Your task to perform on an android device: turn on translation in the chrome app Image 0: 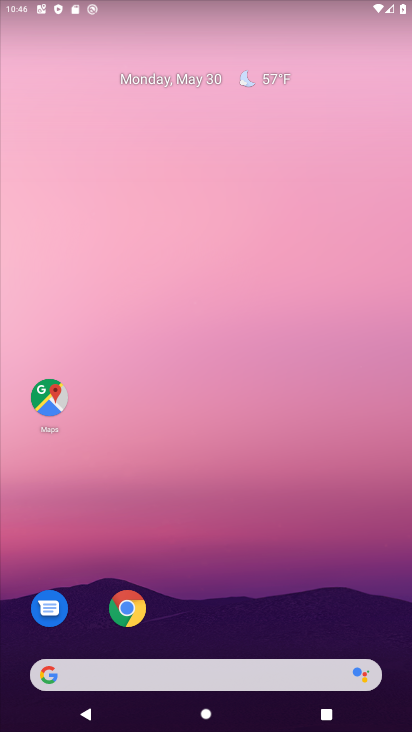
Step 0: drag from (250, 571) to (250, 27)
Your task to perform on an android device: turn on translation in the chrome app Image 1: 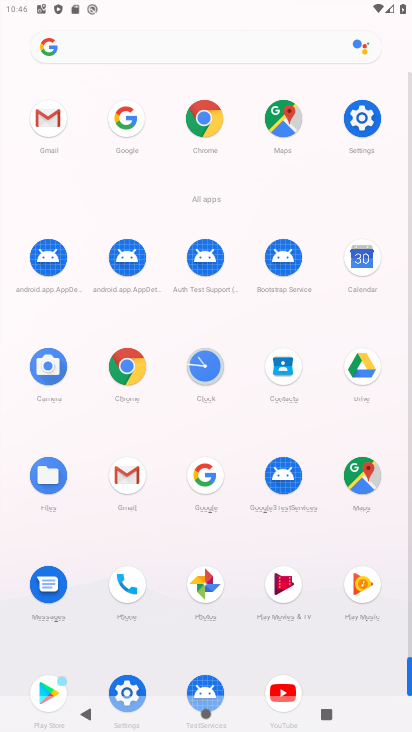
Step 1: drag from (23, 549) to (28, 209)
Your task to perform on an android device: turn on translation in the chrome app Image 2: 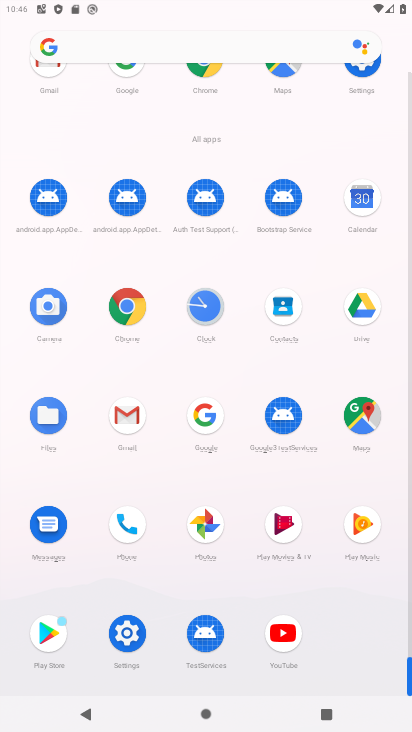
Step 2: click (125, 303)
Your task to perform on an android device: turn on translation in the chrome app Image 3: 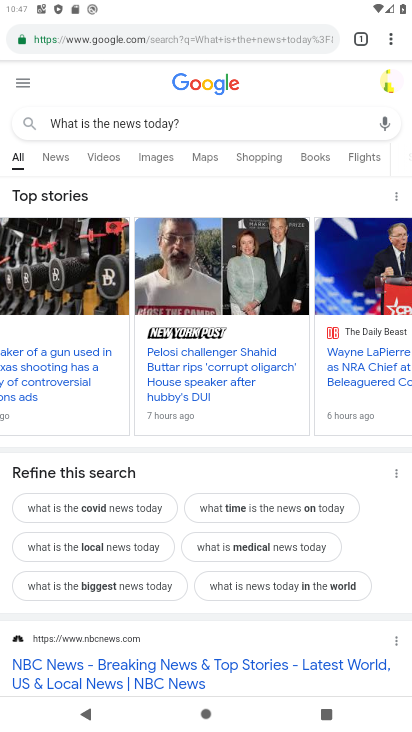
Step 3: drag from (387, 40) to (241, 471)
Your task to perform on an android device: turn on translation in the chrome app Image 4: 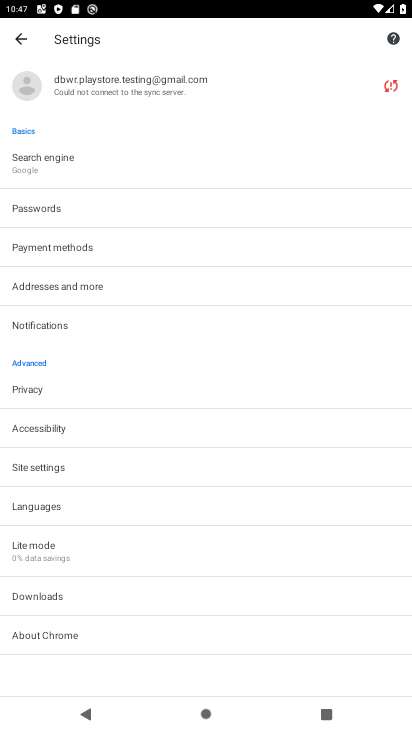
Step 4: click (89, 512)
Your task to perform on an android device: turn on translation in the chrome app Image 5: 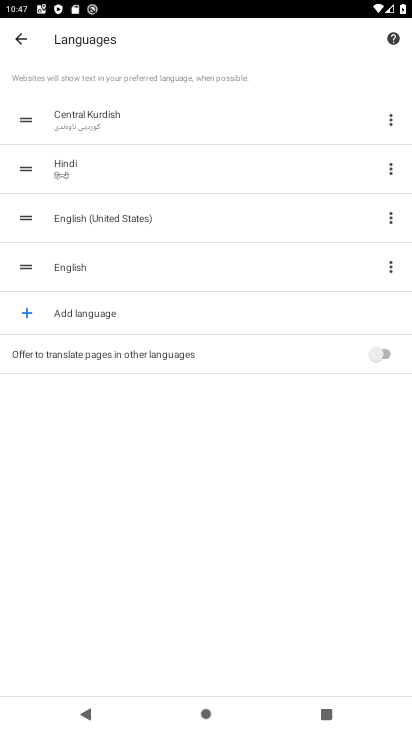
Step 5: click (372, 354)
Your task to perform on an android device: turn on translation in the chrome app Image 6: 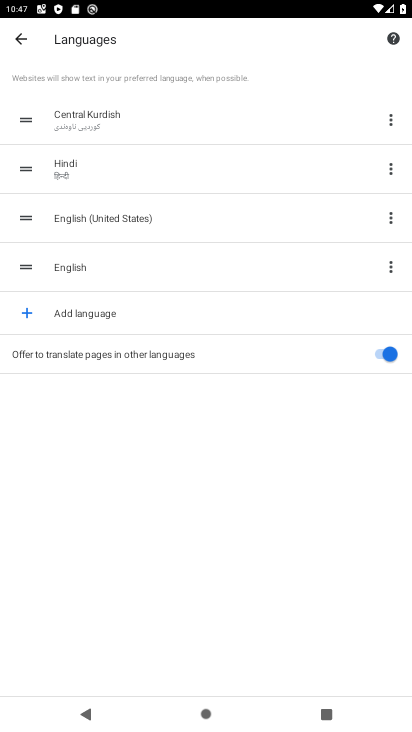
Step 6: task complete